Your task to perform on an android device: check out phone information Image 0: 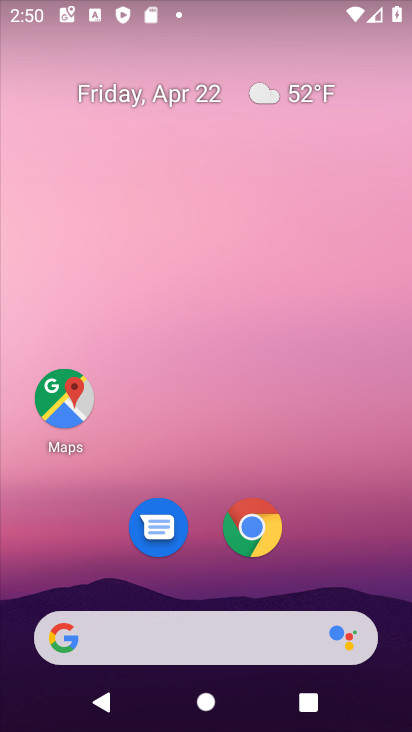
Step 0: drag from (378, 213) to (361, 155)
Your task to perform on an android device: check out phone information Image 1: 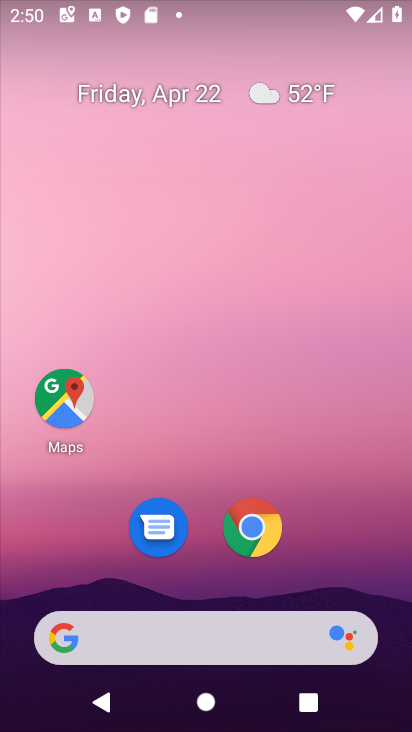
Step 1: drag from (334, 495) to (408, 31)
Your task to perform on an android device: check out phone information Image 2: 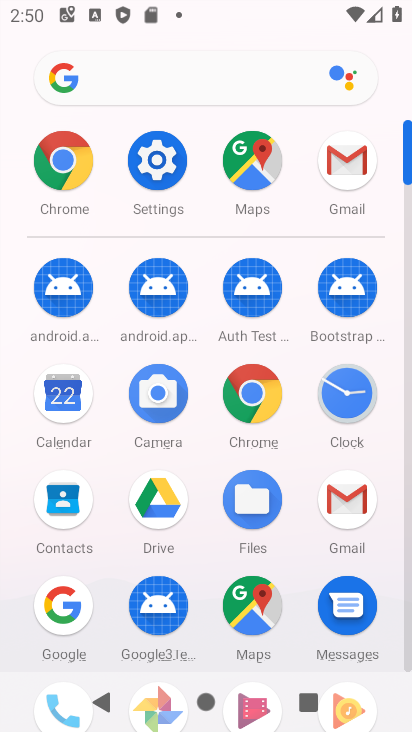
Step 2: click (149, 167)
Your task to perform on an android device: check out phone information Image 3: 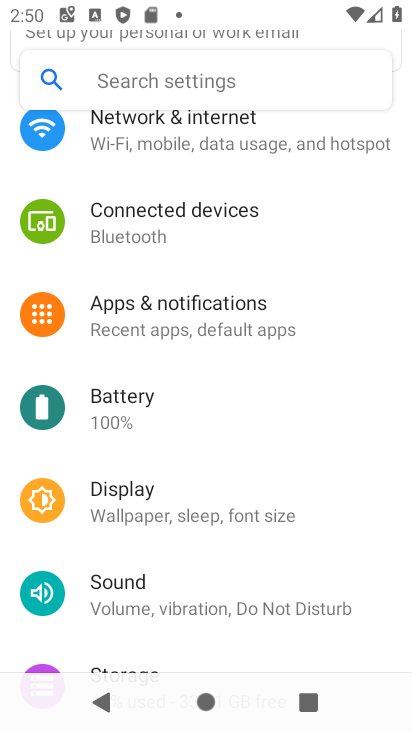
Step 3: drag from (158, 515) to (184, 190)
Your task to perform on an android device: check out phone information Image 4: 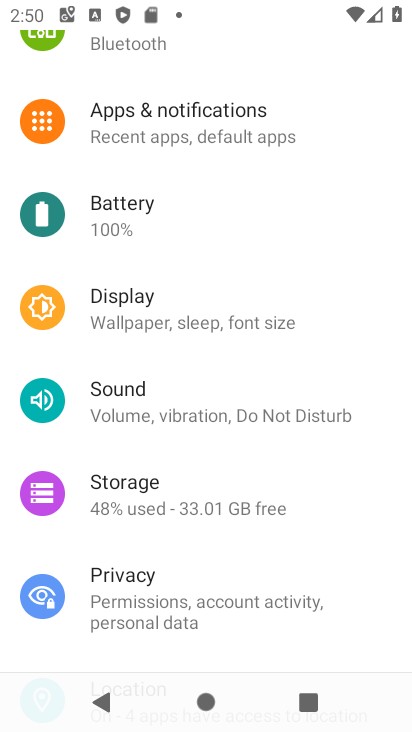
Step 4: drag from (180, 572) to (294, 135)
Your task to perform on an android device: check out phone information Image 5: 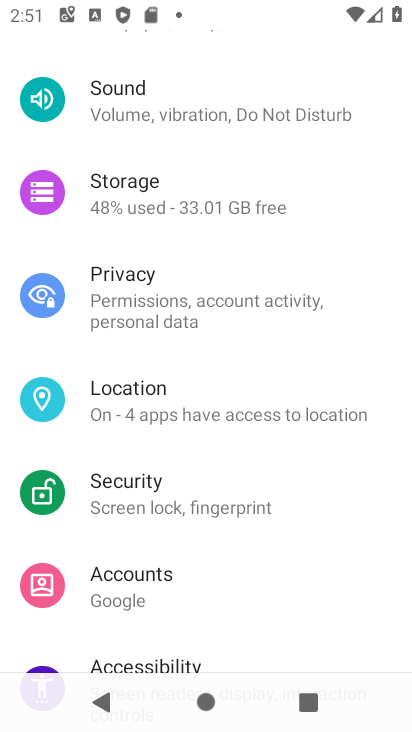
Step 5: drag from (242, 515) to (262, 148)
Your task to perform on an android device: check out phone information Image 6: 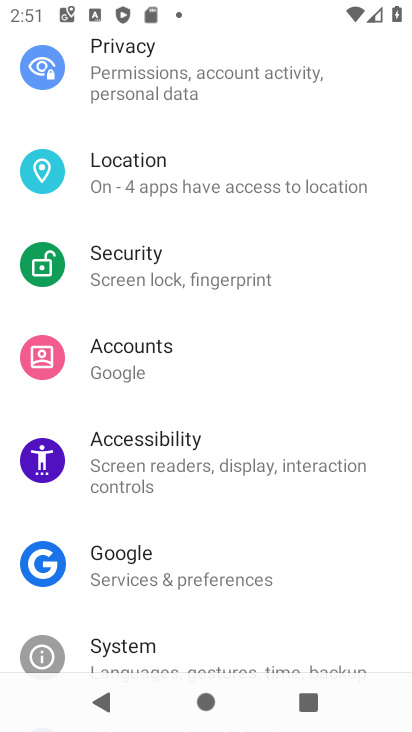
Step 6: drag from (261, 515) to (300, 155)
Your task to perform on an android device: check out phone information Image 7: 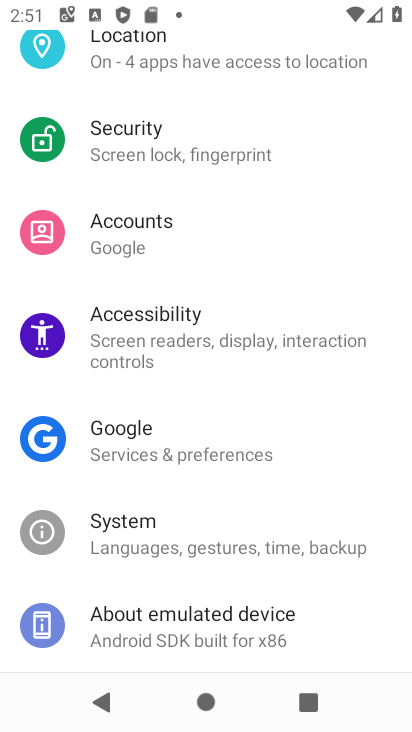
Step 7: click (157, 640)
Your task to perform on an android device: check out phone information Image 8: 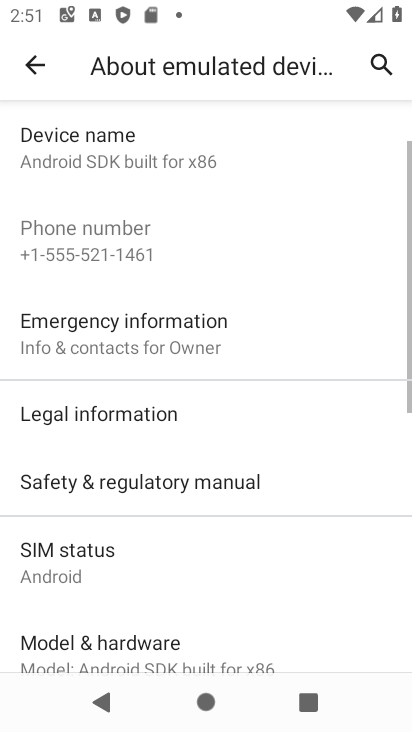
Step 8: drag from (177, 587) to (189, 262)
Your task to perform on an android device: check out phone information Image 9: 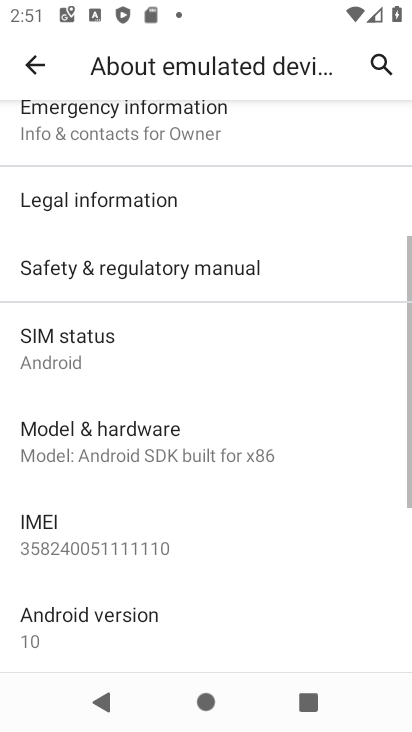
Step 9: drag from (143, 558) to (147, 221)
Your task to perform on an android device: check out phone information Image 10: 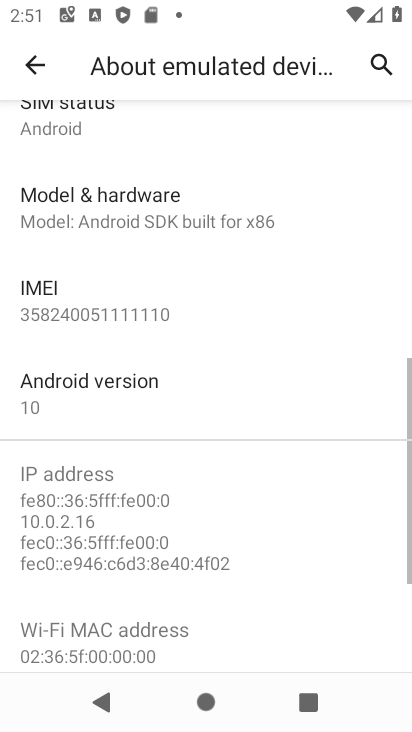
Step 10: click (97, 376)
Your task to perform on an android device: check out phone information Image 11: 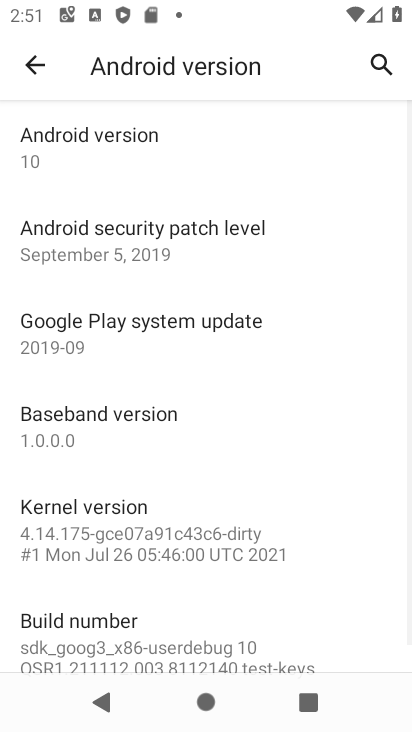
Step 11: click (53, 151)
Your task to perform on an android device: check out phone information Image 12: 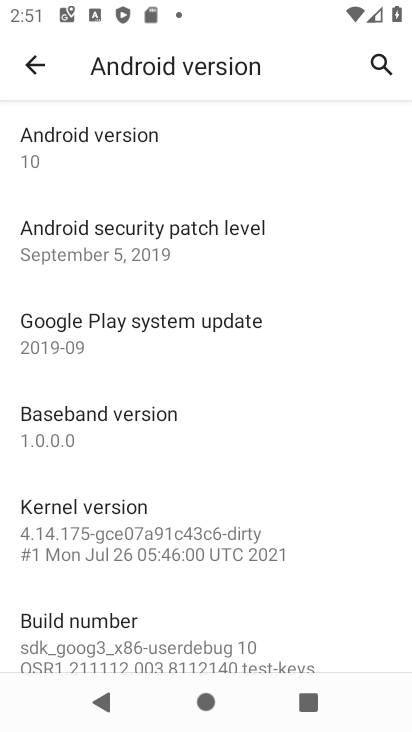
Step 12: task complete